Your task to perform on an android device: add a contact Image 0: 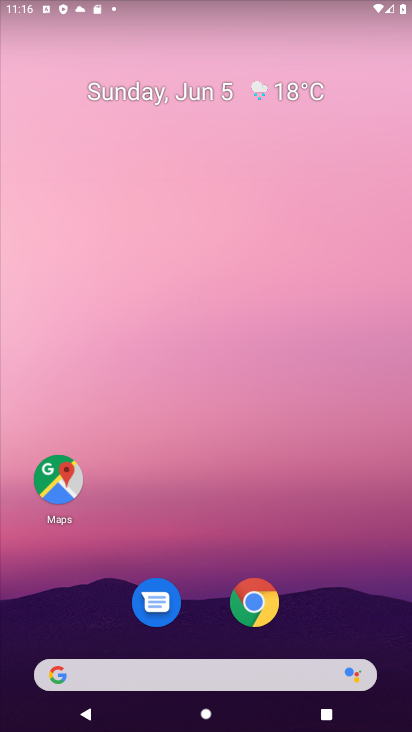
Step 0: click (346, 615)
Your task to perform on an android device: add a contact Image 1: 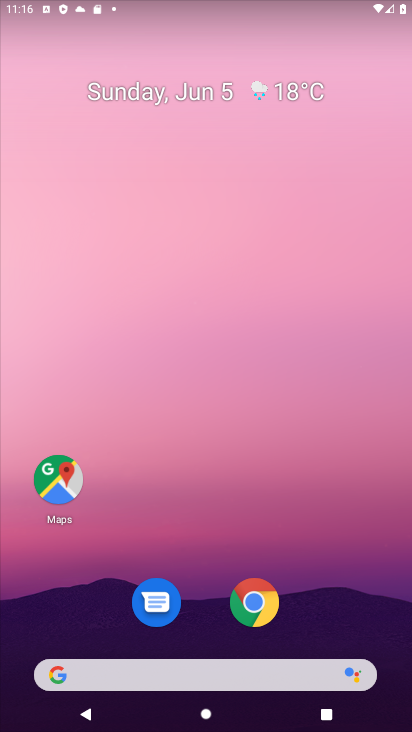
Step 1: drag from (346, 615) to (190, 152)
Your task to perform on an android device: add a contact Image 2: 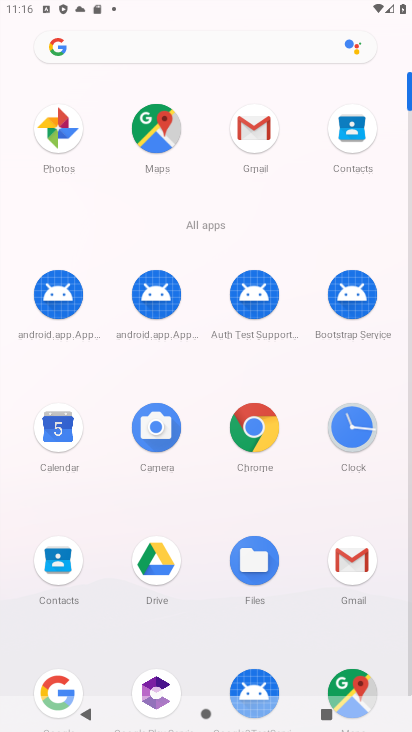
Step 2: click (44, 453)
Your task to perform on an android device: add a contact Image 3: 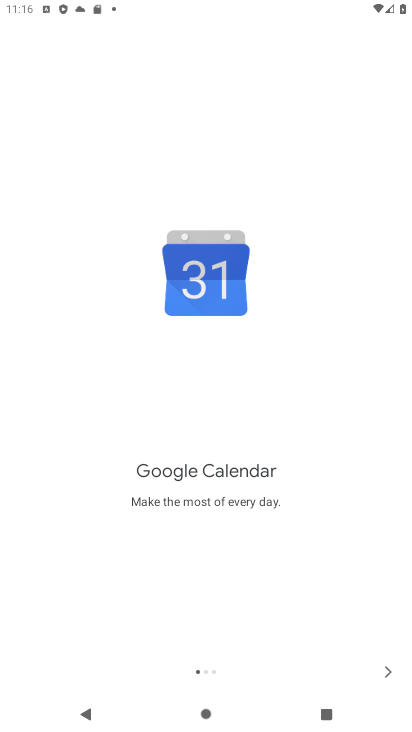
Step 3: task complete